Your task to perform on an android device: open the mobile data screen to see how much data has been used Image 0: 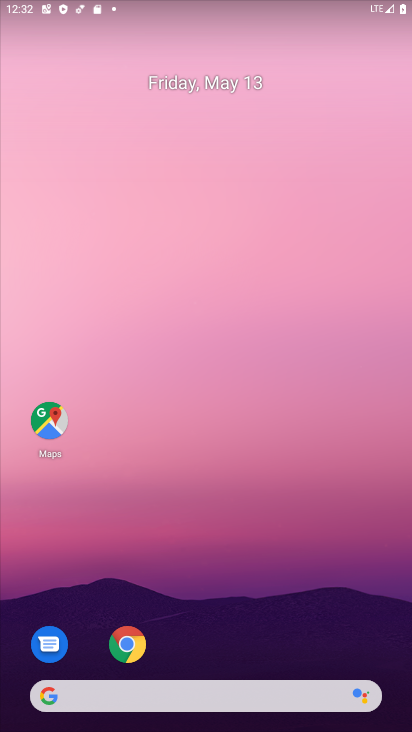
Step 0: drag from (333, 610) to (162, 58)
Your task to perform on an android device: open the mobile data screen to see how much data has been used Image 1: 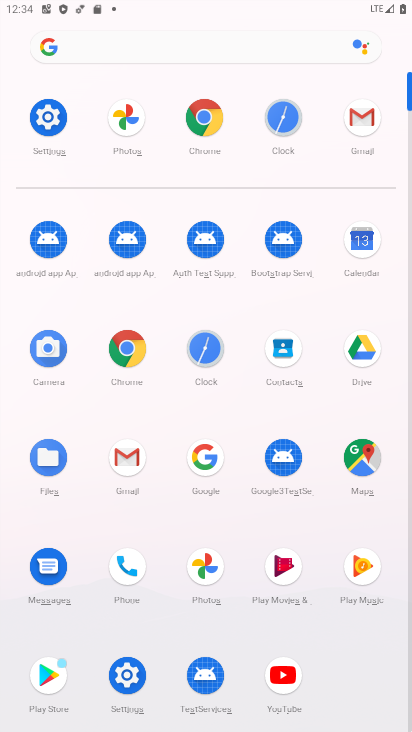
Step 1: click (112, 685)
Your task to perform on an android device: open the mobile data screen to see how much data has been used Image 2: 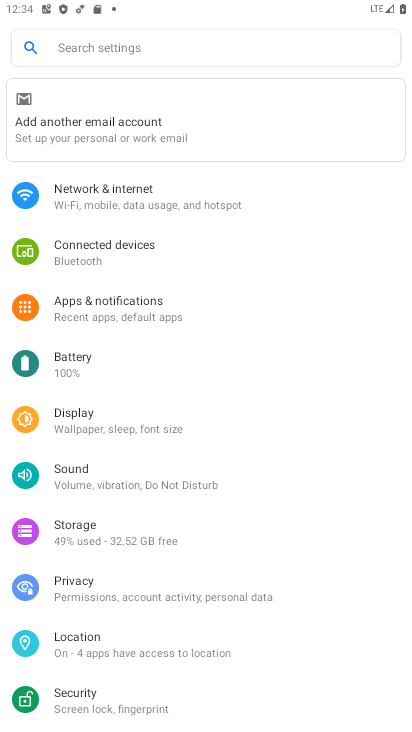
Step 2: click (118, 200)
Your task to perform on an android device: open the mobile data screen to see how much data has been used Image 3: 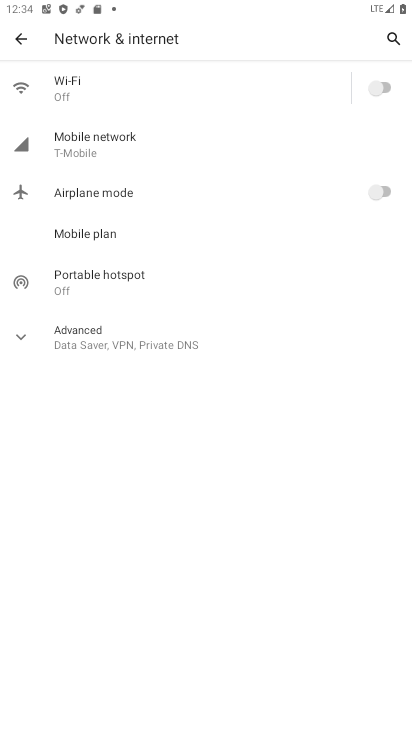
Step 3: click (195, 146)
Your task to perform on an android device: open the mobile data screen to see how much data has been used Image 4: 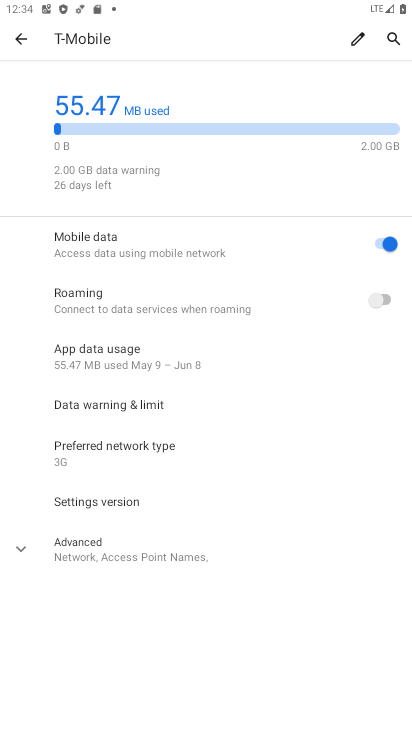
Step 4: click (113, 357)
Your task to perform on an android device: open the mobile data screen to see how much data has been used Image 5: 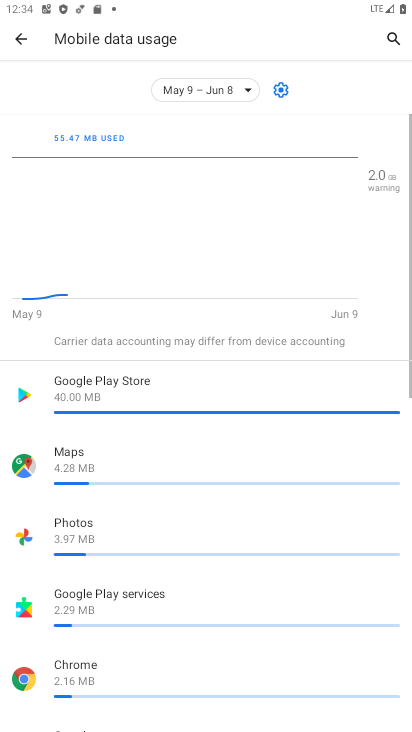
Step 5: task complete